Your task to perform on an android device: open app "Roku - Official Remote Control" (install if not already installed) Image 0: 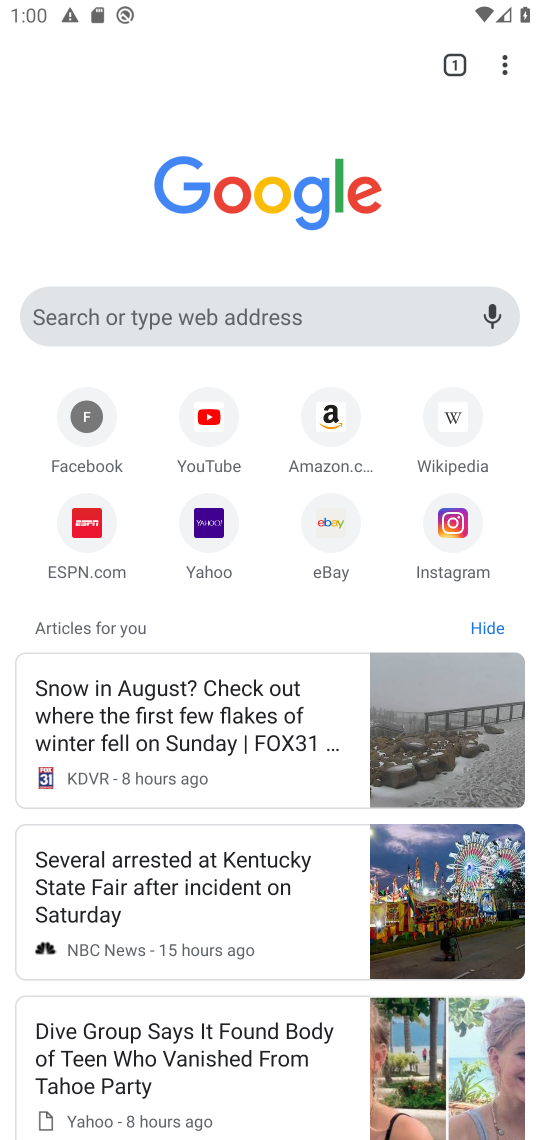
Step 0: press home button
Your task to perform on an android device: open app "Roku - Official Remote Control" (install if not already installed) Image 1: 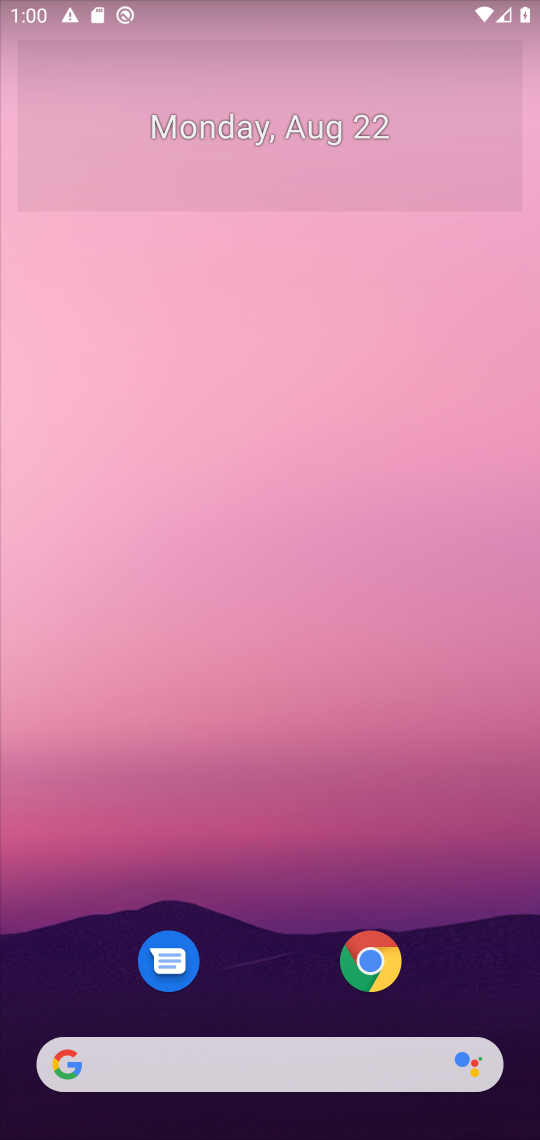
Step 1: drag from (503, 1003) to (518, 150)
Your task to perform on an android device: open app "Roku - Official Remote Control" (install if not already installed) Image 2: 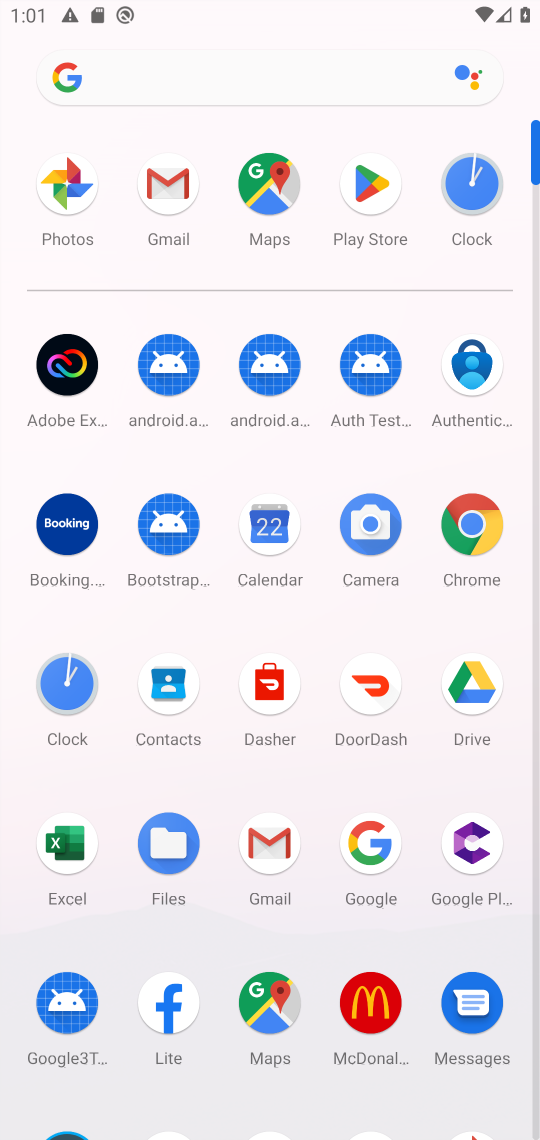
Step 2: click (365, 191)
Your task to perform on an android device: open app "Roku - Official Remote Control" (install if not already installed) Image 3: 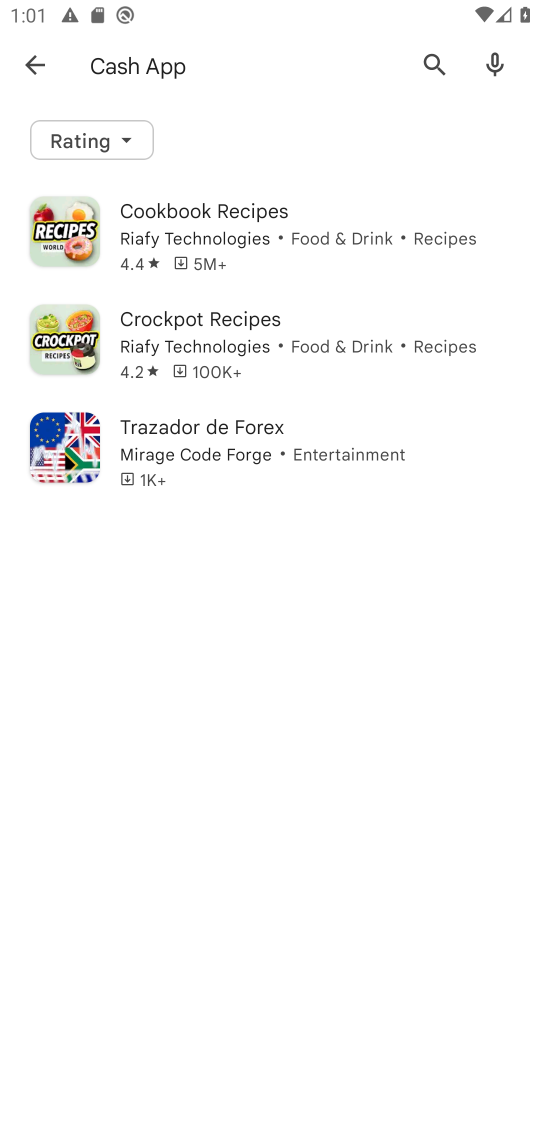
Step 3: press back button
Your task to perform on an android device: open app "Roku - Official Remote Control" (install if not already installed) Image 4: 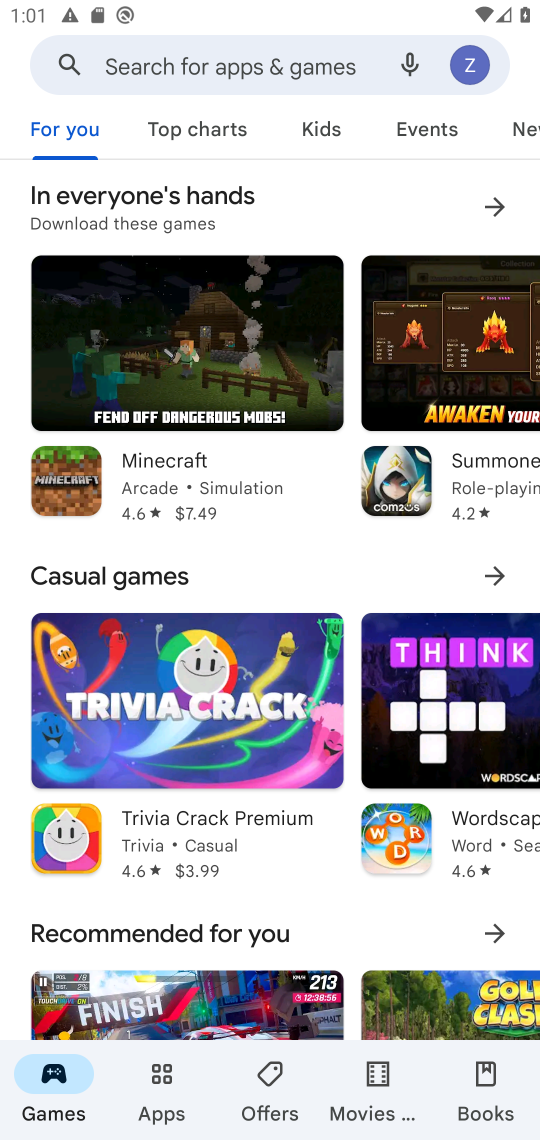
Step 4: click (253, 66)
Your task to perform on an android device: open app "Roku - Official Remote Control" (install if not already installed) Image 5: 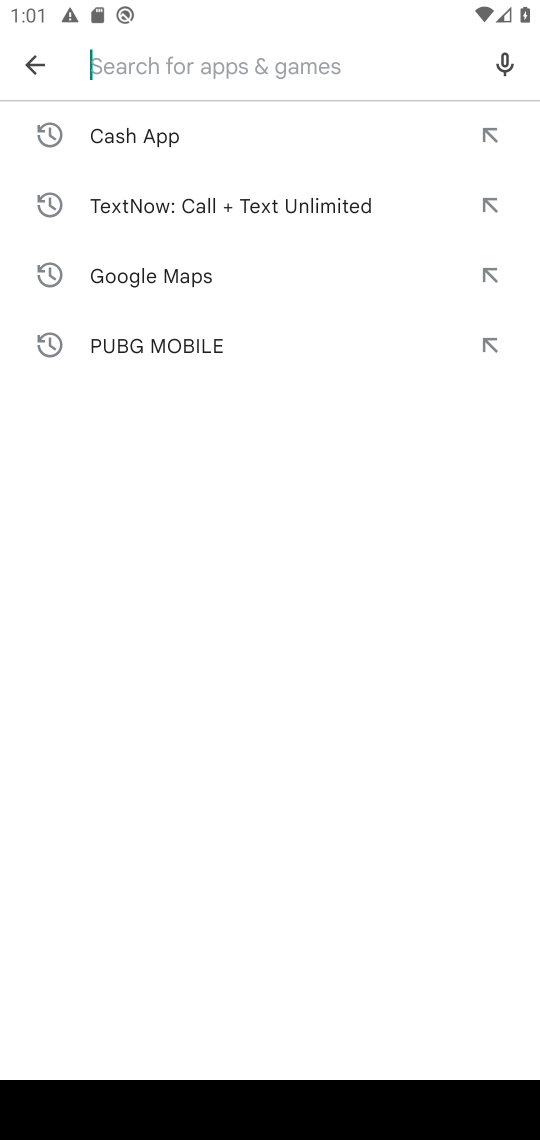
Step 5: type "Roku - Official Remote Control"
Your task to perform on an android device: open app "Roku - Official Remote Control" (install if not already installed) Image 6: 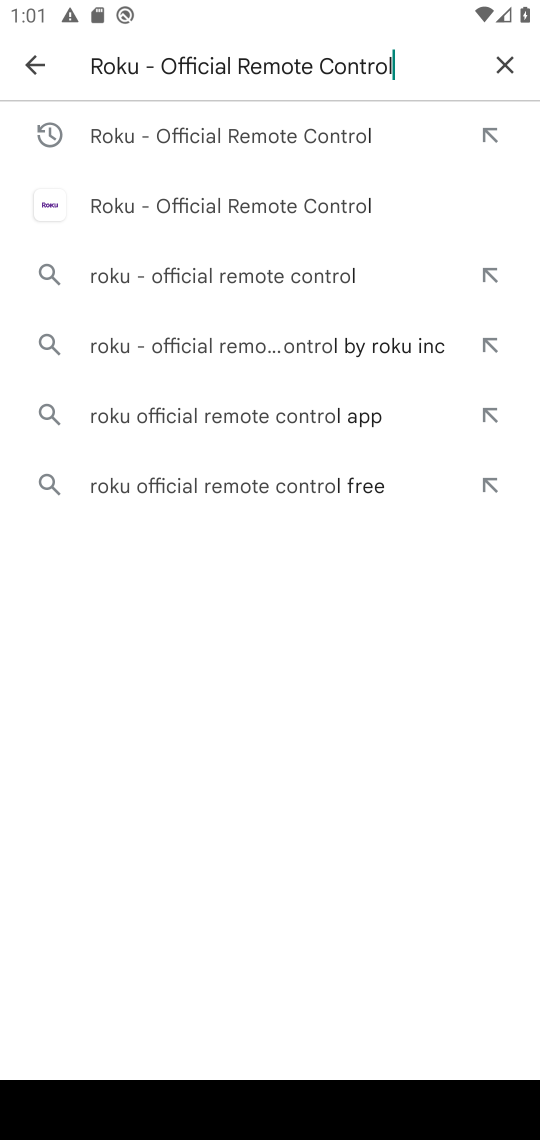
Step 6: press enter
Your task to perform on an android device: open app "Roku - Official Remote Control" (install if not already installed) Image 7: 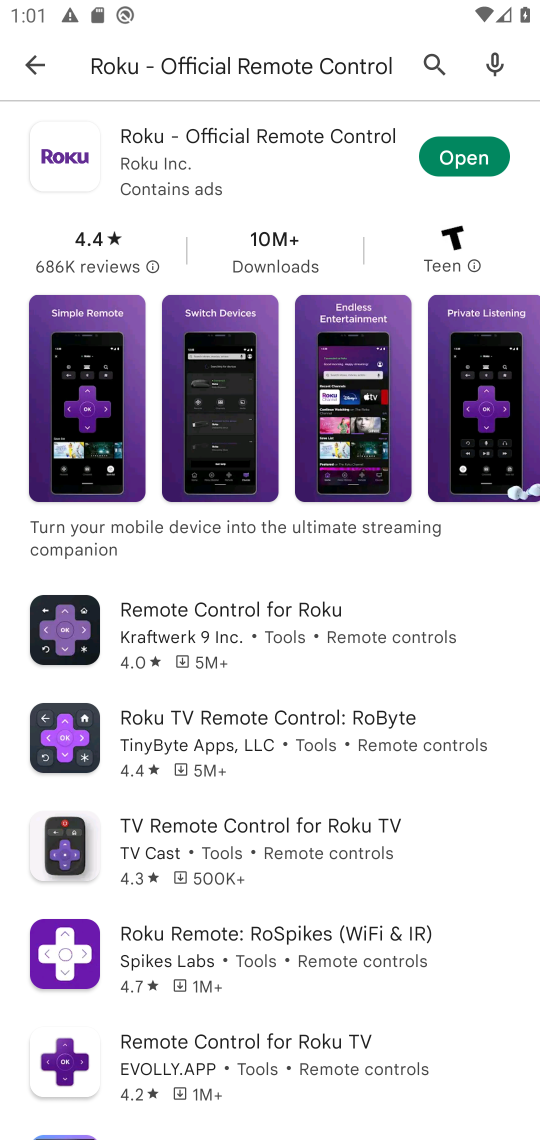
Step 7: click (470, 160)
Your task to perform on an android device: open app "Roku - Official Remote Control" (install if not already installed) Image 8: 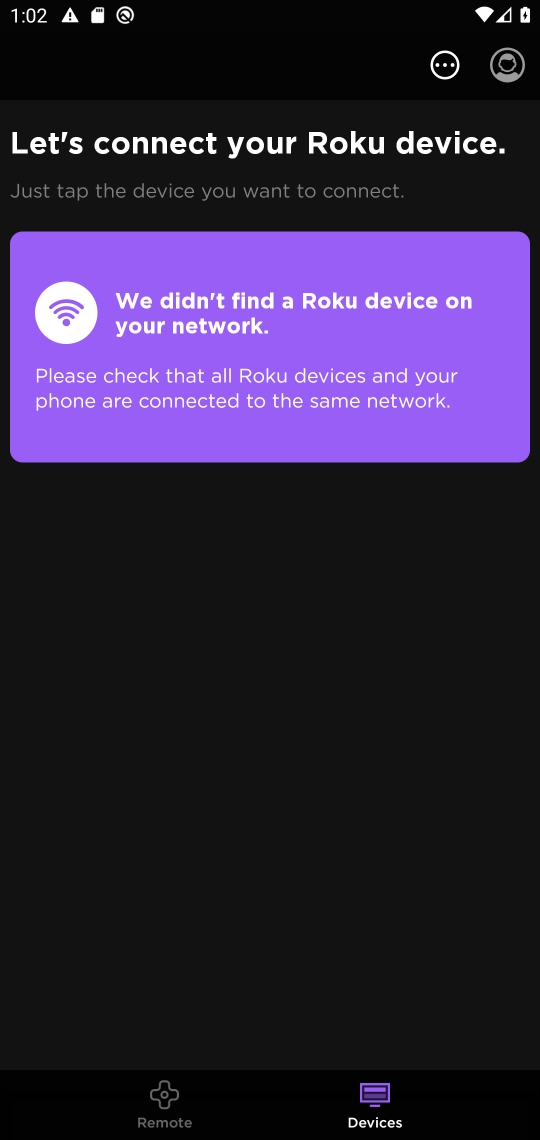
Step 8: task complete